Your task to perform on an android device: open wifi settings Image 0: 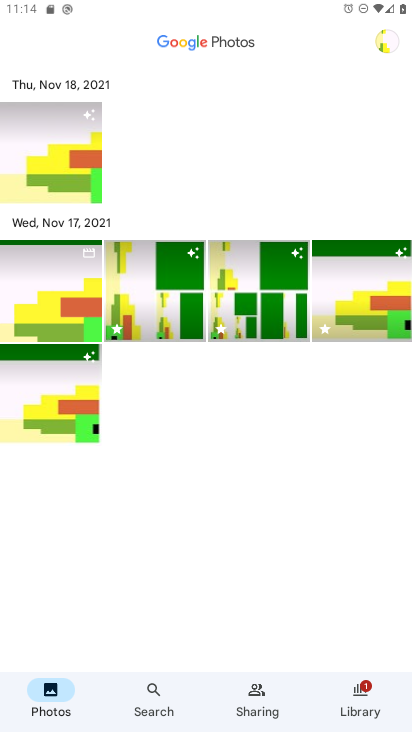
Step 0: press home button
Your task to perform on an android device: open wifi settings Image 1: 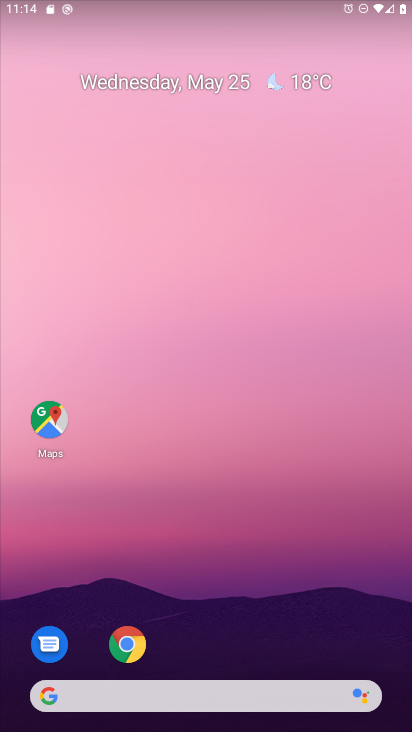
Step 1: drag from (234, 6) to (246, 648)
Your task to perform on an android device: open wifi settings Image 2: 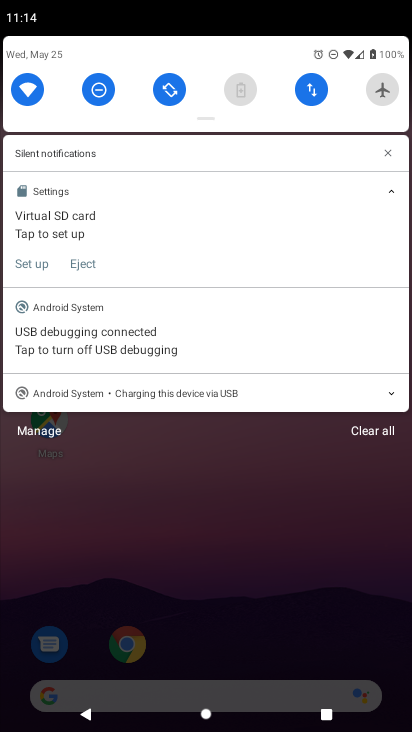
Step 2: drag from (224, 621) to (230, 73)
Your task to perform on an android device: open wifi settings Image 3: 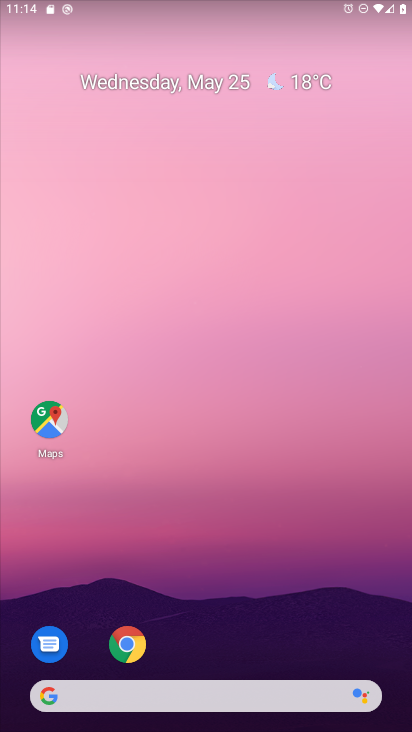
Step 3: drag from (215, 670) to (237, 34)
Your task to perform on an android device: open wifi settings Image 4: 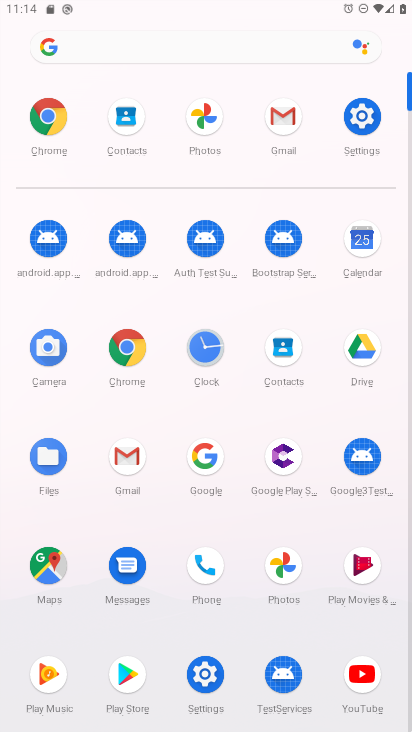
Step 4: click (358, 112)
Your task to perform on an android device: open wifi settings Image 5: 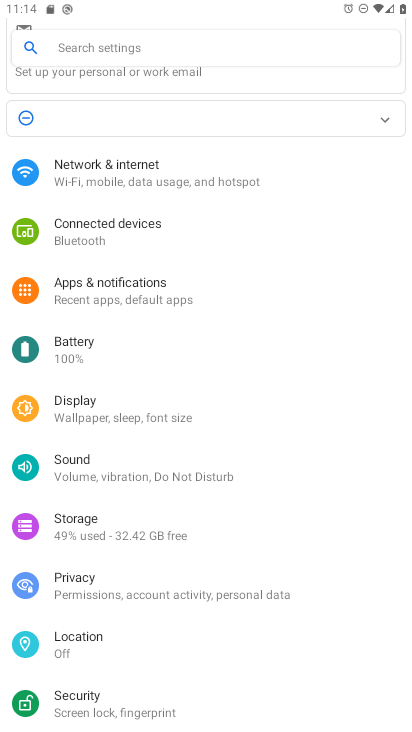
Step 5: click (167, 165)
Your task to perform on an android device: open wifi settings Image 6: 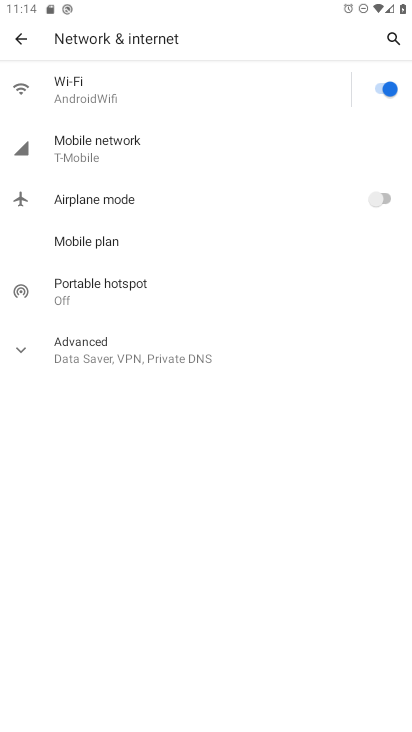
Step 6: click (20, 343)
Your task to perform on an android device: open wifi settings Image 7: 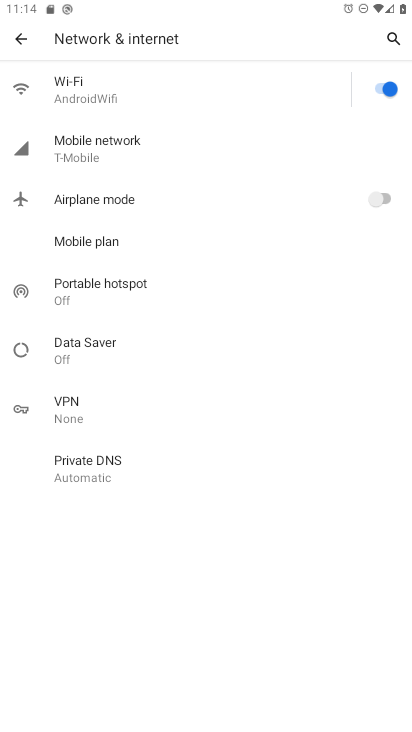
Step 7: click (140, 86)
Your task to perform on an android device: open wifi settings Image 8: 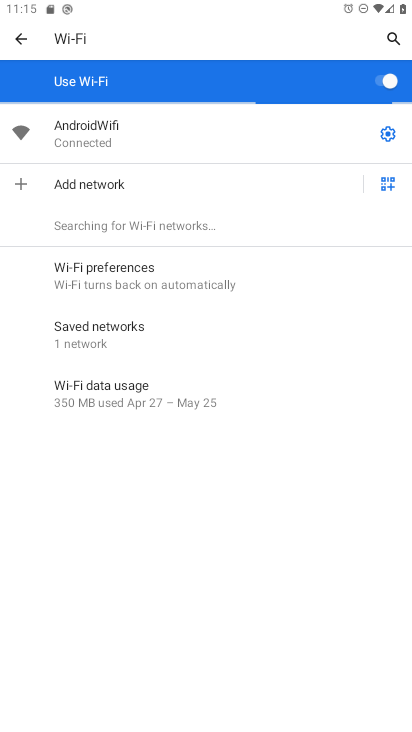
Step 8: task complete